Your task to perform on an android device: check google app version Image 0: 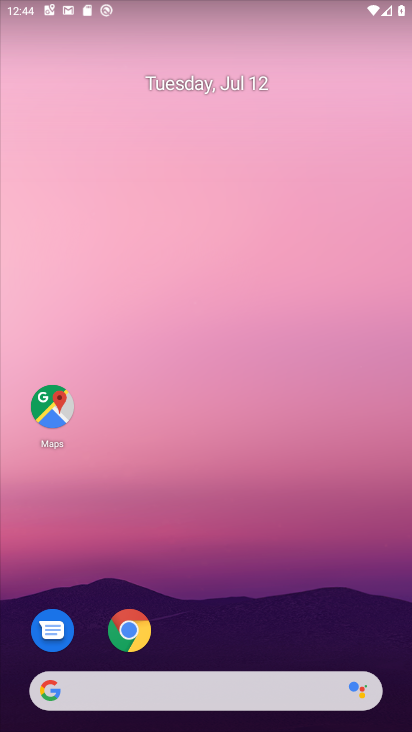
Step 0: drag from (267, 611) to (288, 326)
Your task to perform on an android device: check google app version Image 1: 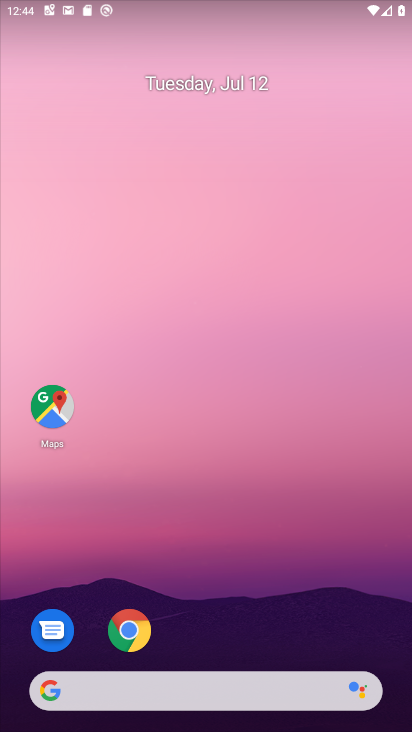
Step 1: drag from (278, 594) to (291, 65)
Your task to perform on an android device: check google app version Image 2: 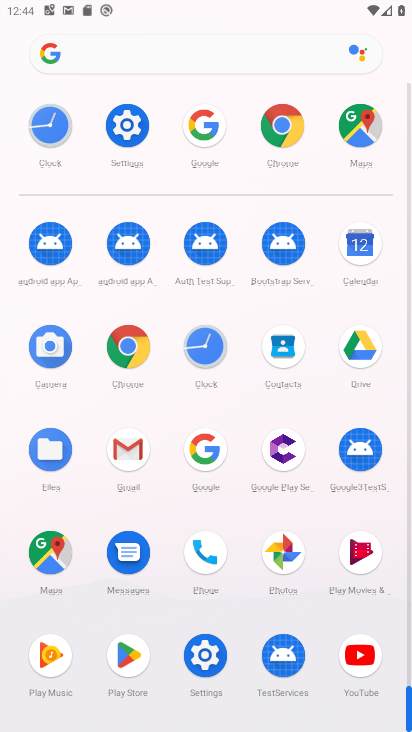
Step 2: click (214, 453)
Your task to perform on an android device: check google app version Image 3: 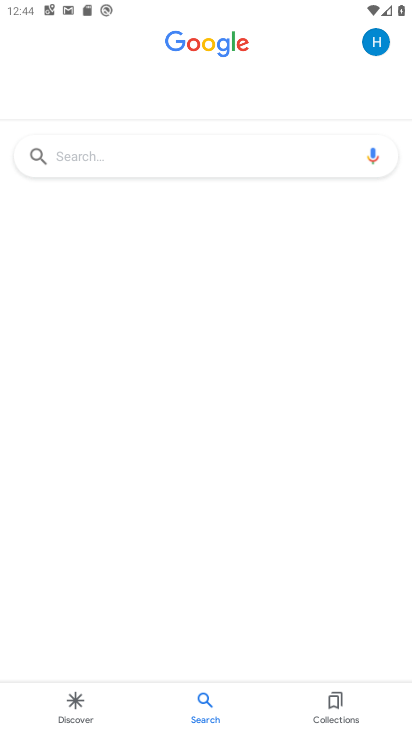
Step 3: click (382, 53)
Your task to perform on an android device: check google app version Image 4: 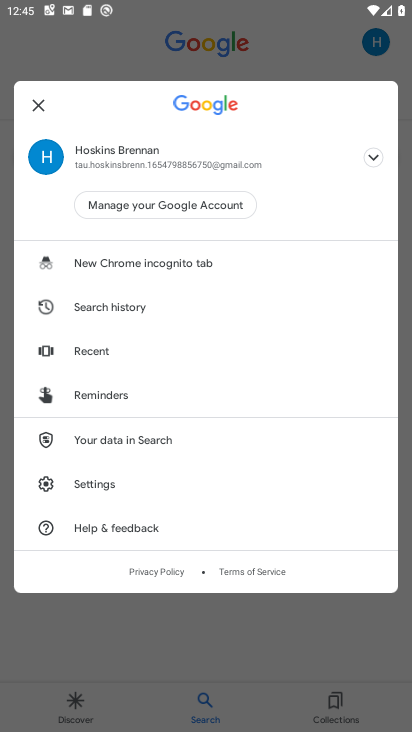
Step 4: click (96, 488)
Your task to perform on an android device: check google app version Image 5: 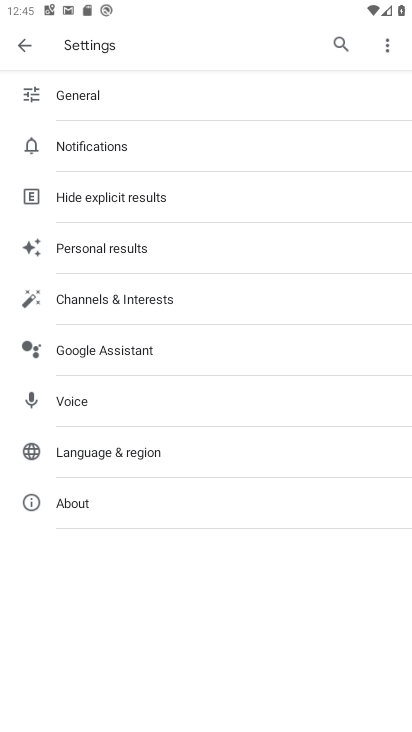
Step 5: click (92, 493)
Your task to perform on an android device: check google app version Image 6: 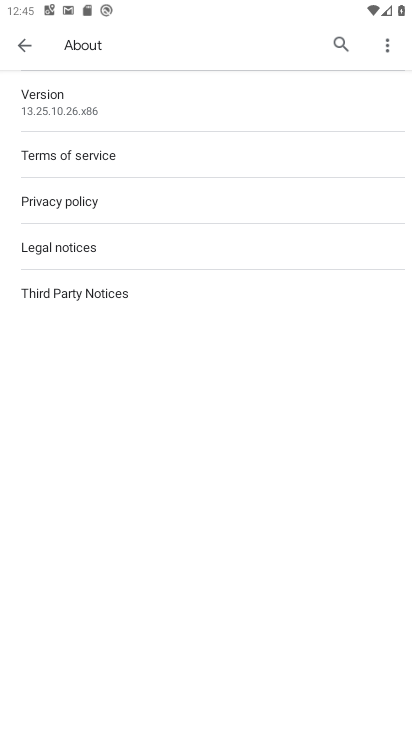
Step 6: click (123, 84)
Your task to perform on an android device: check google app version Image 7: 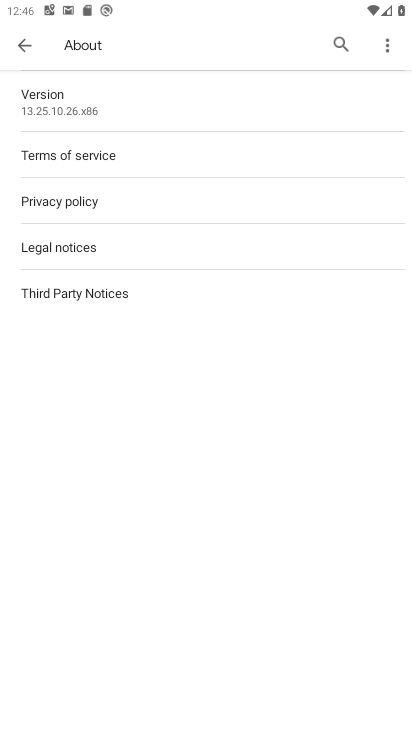
Step 7: task complete